Your task to perform on an android device: Open Wikipedia Image 0: 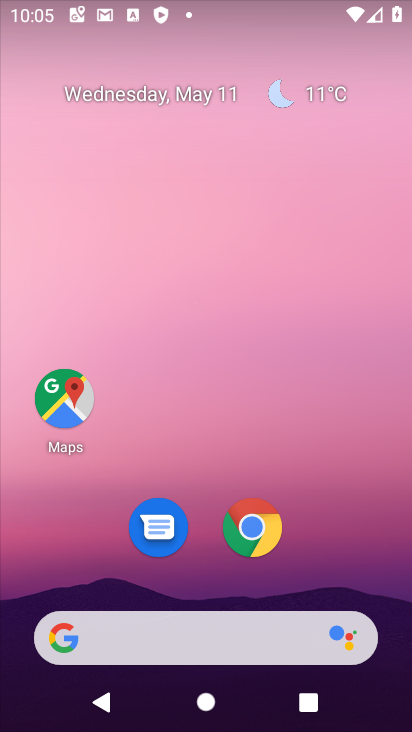
Step 0: drag from (329, 555) to (310, 57)
Your task to perform on an android device: Open Wikipedia Image 1: 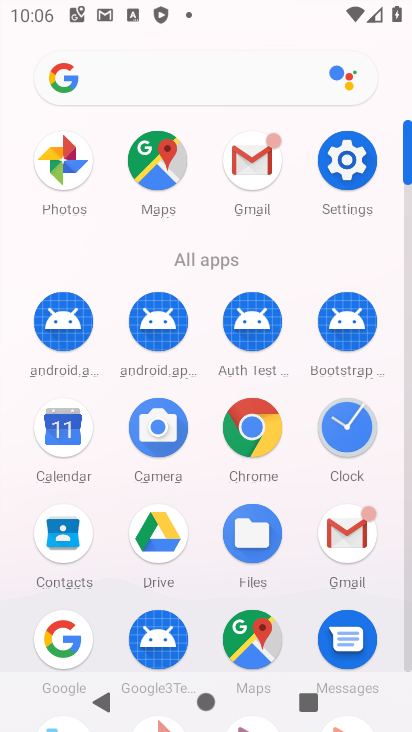
Step 1: click (360, 169)
Your task to perform on an android device: Open Wikipedia Image 2: 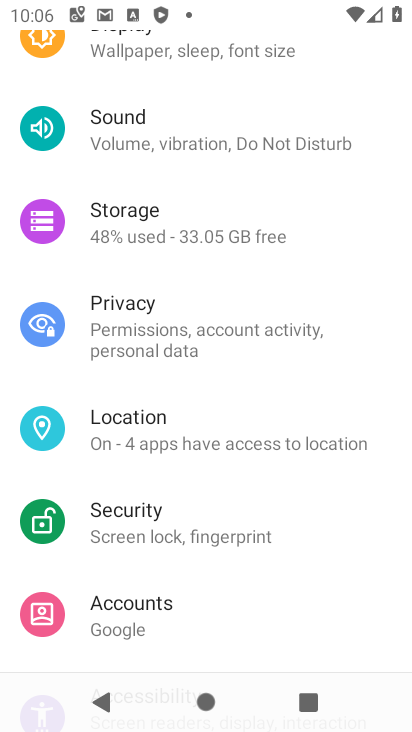
Step 2: press back button
Your task to perform on an android device: Open Wikipedia Image 3: 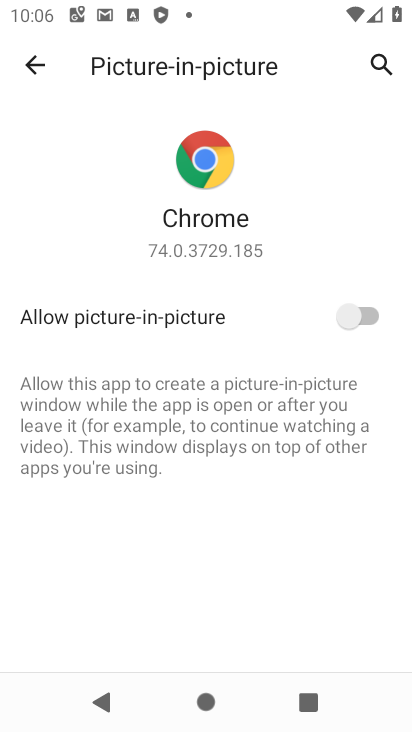
Step 3: press home button
Your task to perform on an android device: Open Wikipedia Image 4: 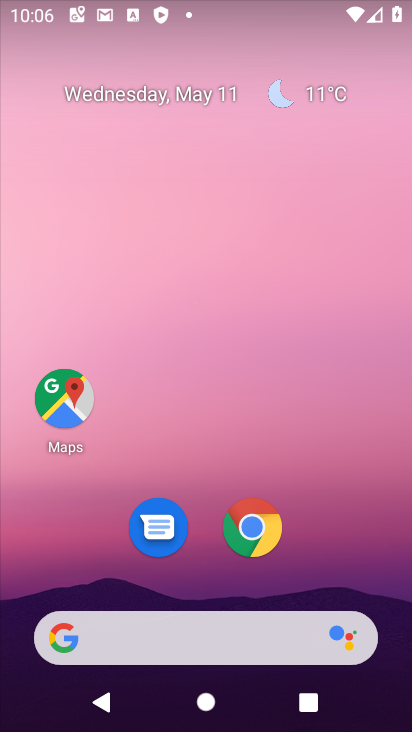
Step 4: click (257, 534)
Your task to perform on an android device: Open Wikipedia Image 5: 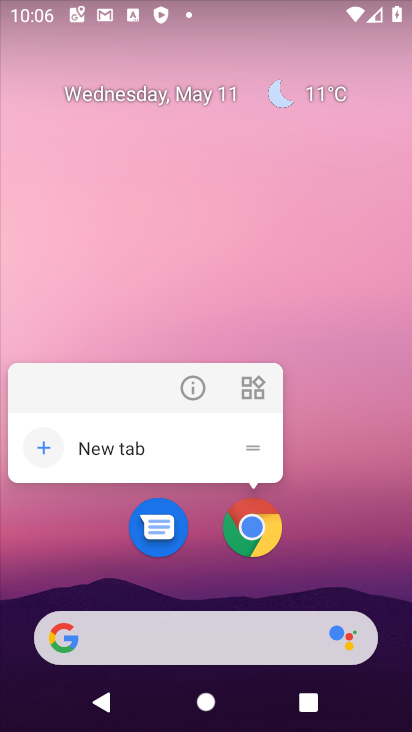
Step 5: click (245, 529)
Your task to perform on an android device: Open Wikipedia Image 6: 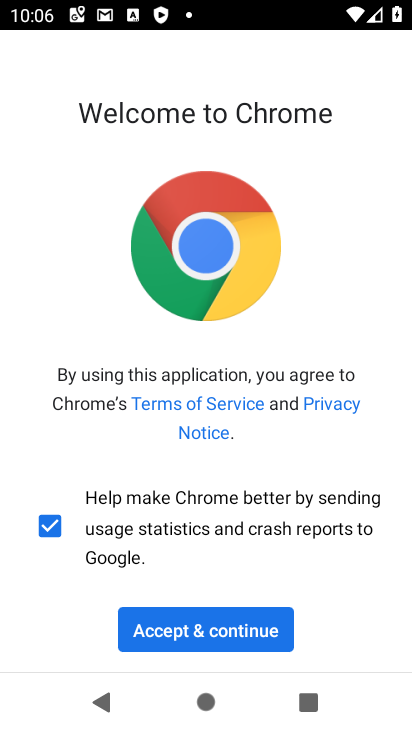
Step 6: click (195, 628)
Your task to perform on an android device: Open Wikipedia Image 7: 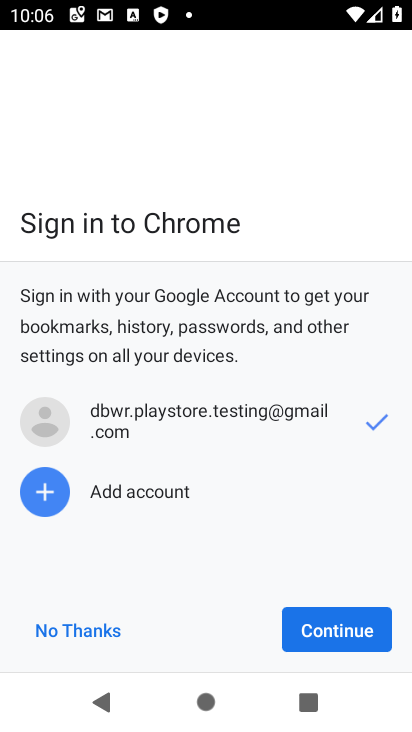
Step 7: click (82, 630)
Your task to perform on an android device: Open Wikipedia Image 8: 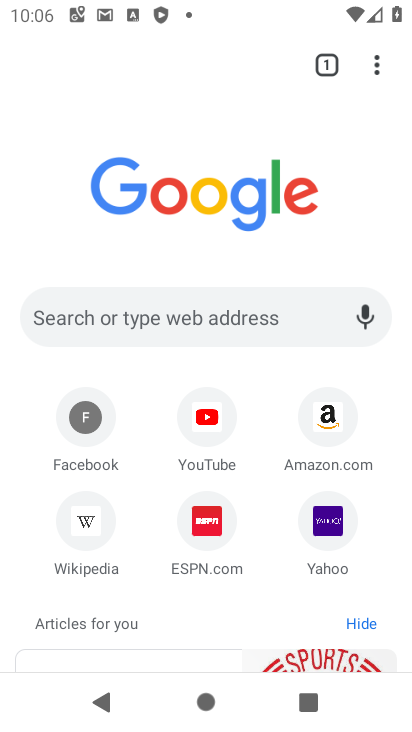
Step 8: drag from (377, 639) to (363, 315)
Your task to perform on an android device: Open Wikipedia Image 9: 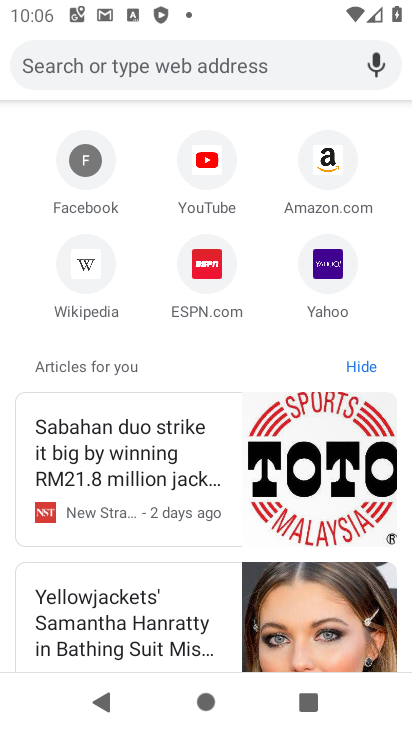
Step 9: click (70, 265)
Your task to perform on an android device: Open Wikipedia Image 10: 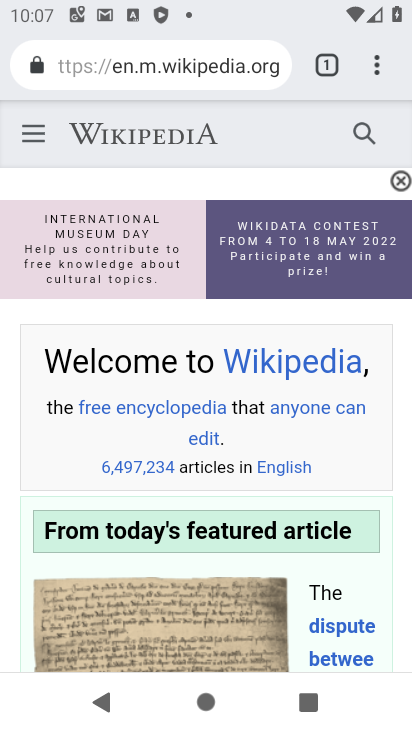
Step 10: task complete